Your task to perform on an android device: Open internet settings Image 0: 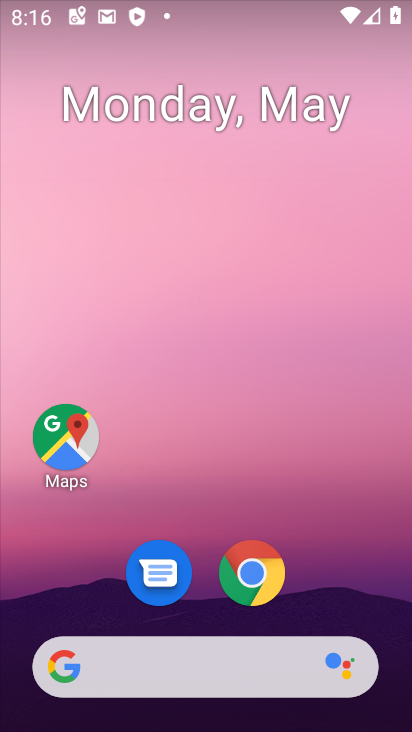
Step 0: drag from (199, 684) to (289, 220)
Your task to perform on an android device: Open internet settings Image 1: 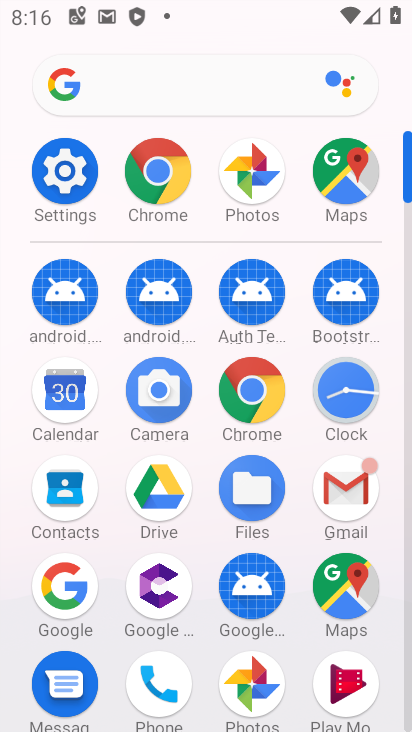
Step 1: click (88, 184)
Your task to perform on an android device: Open internet settings Image 2: 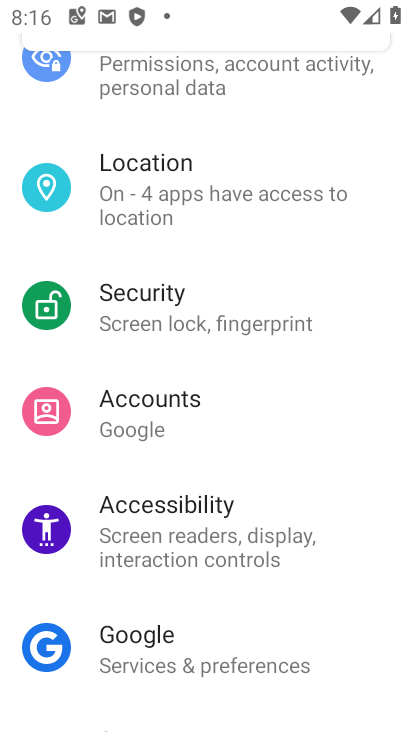
Step 2: drag from (123, 214) to (106, 552)
Your task to perform on an android device: Open internet settings Image 3: 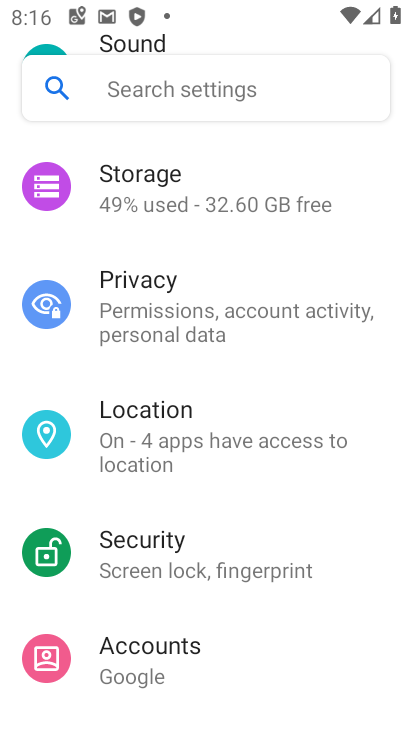
Step 3: drag from (223, 271) to (220, 637)
Your task to perform on an android device: Open internet settings Image 4: 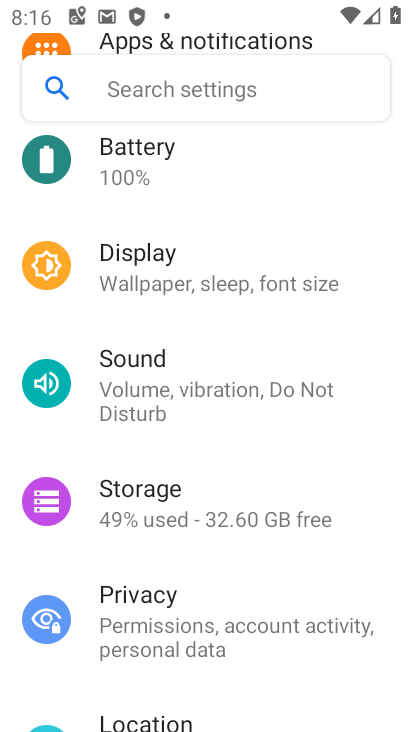
Step 4: drag from (249, 403) to (212, 690)
Your task to perform on an android device: Open internet settings Image 5: 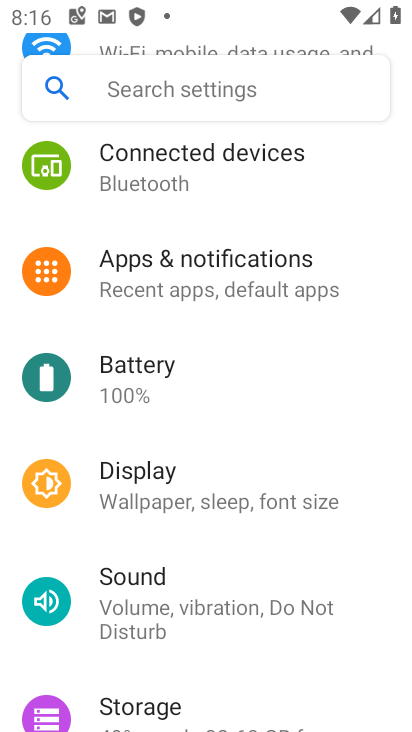
Step 5: drag from (242, 288) to (198, 634)
Your task to perform on an android device: Open internet settings Image 6: 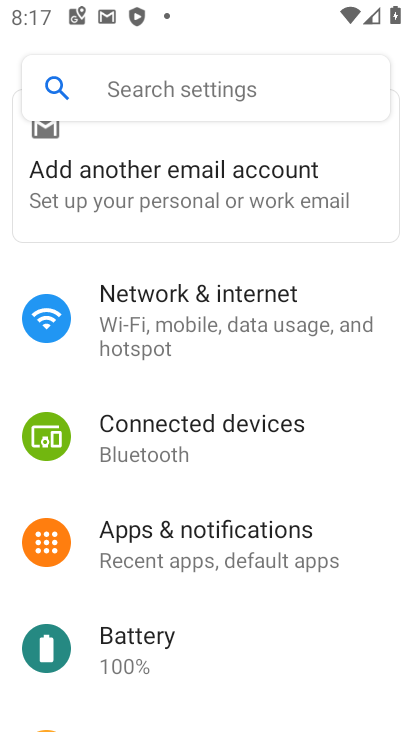
Step 6: click (232, 323)
Your task to perform on an android device: Open internet settings Image 7: 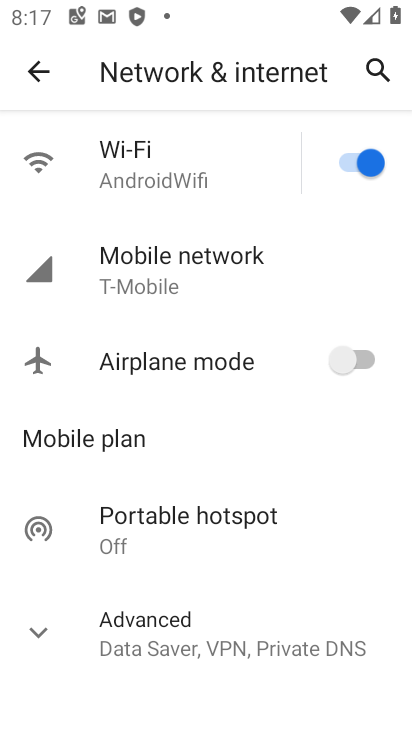
Step 7: click (211, 273)
Your task to perform on an android device: Open internet settings Image 8: 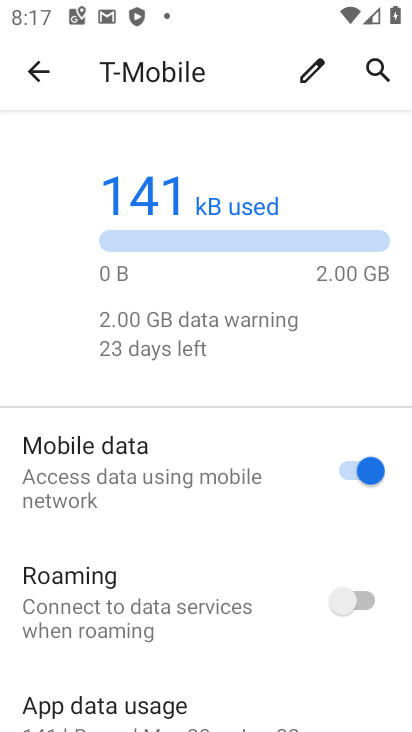
Step 8: task complete